Your task to perform on an android device: open chrome and create a bookmark for the current page Image 0: 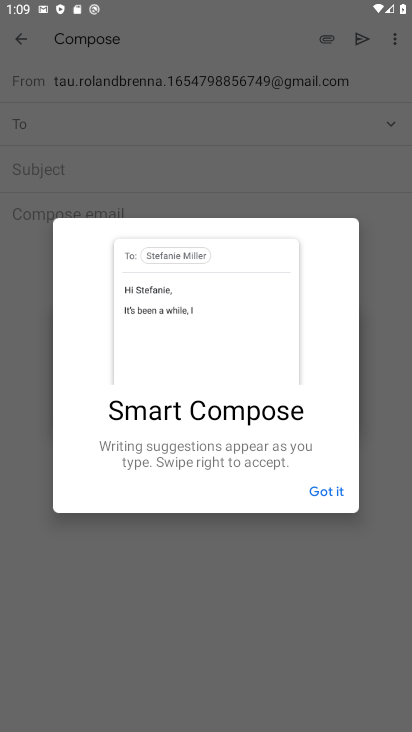
Step 0: press home button
Your task to perform on an android device: open chrome and create a bookmark for the current page Image 1: 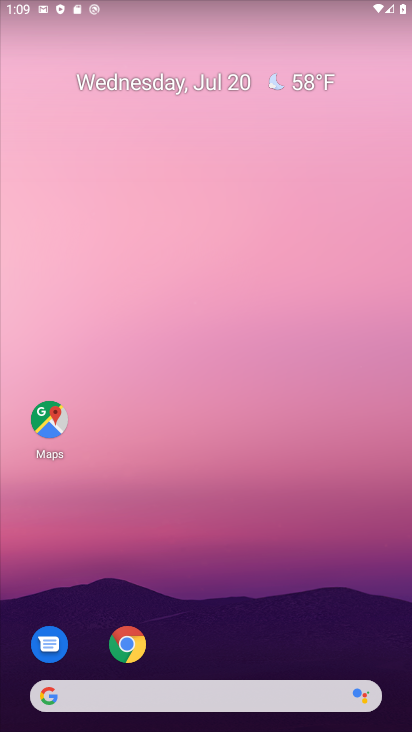
Step 1: click (131, 647)
Your task to perform on an android device: open chrome and create a bookmark for the current page Image 2: 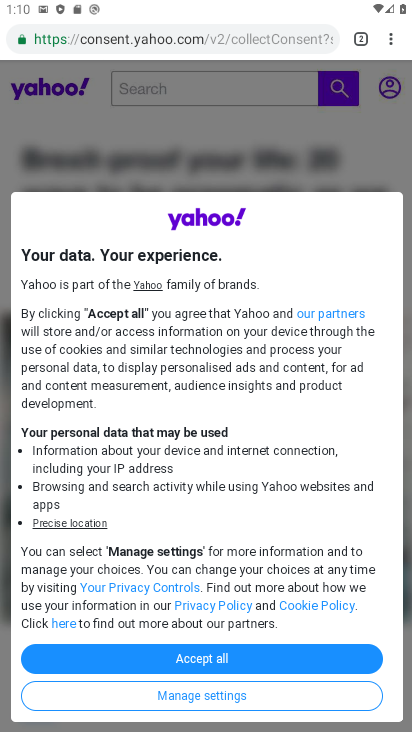
Step 2: click (386, 38)
Your task to perform on an android device: open chrome and create a bookmark for the current page Image 3: 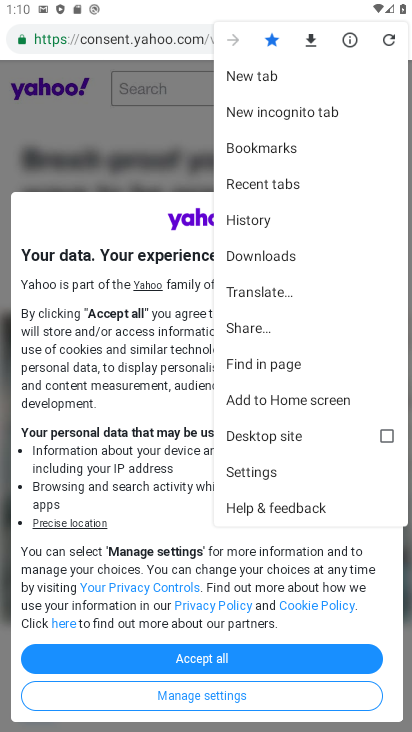
Step 3: task complete